Your task to perform on an android device: uninstall "Speedtest by Ookla" Image 0: 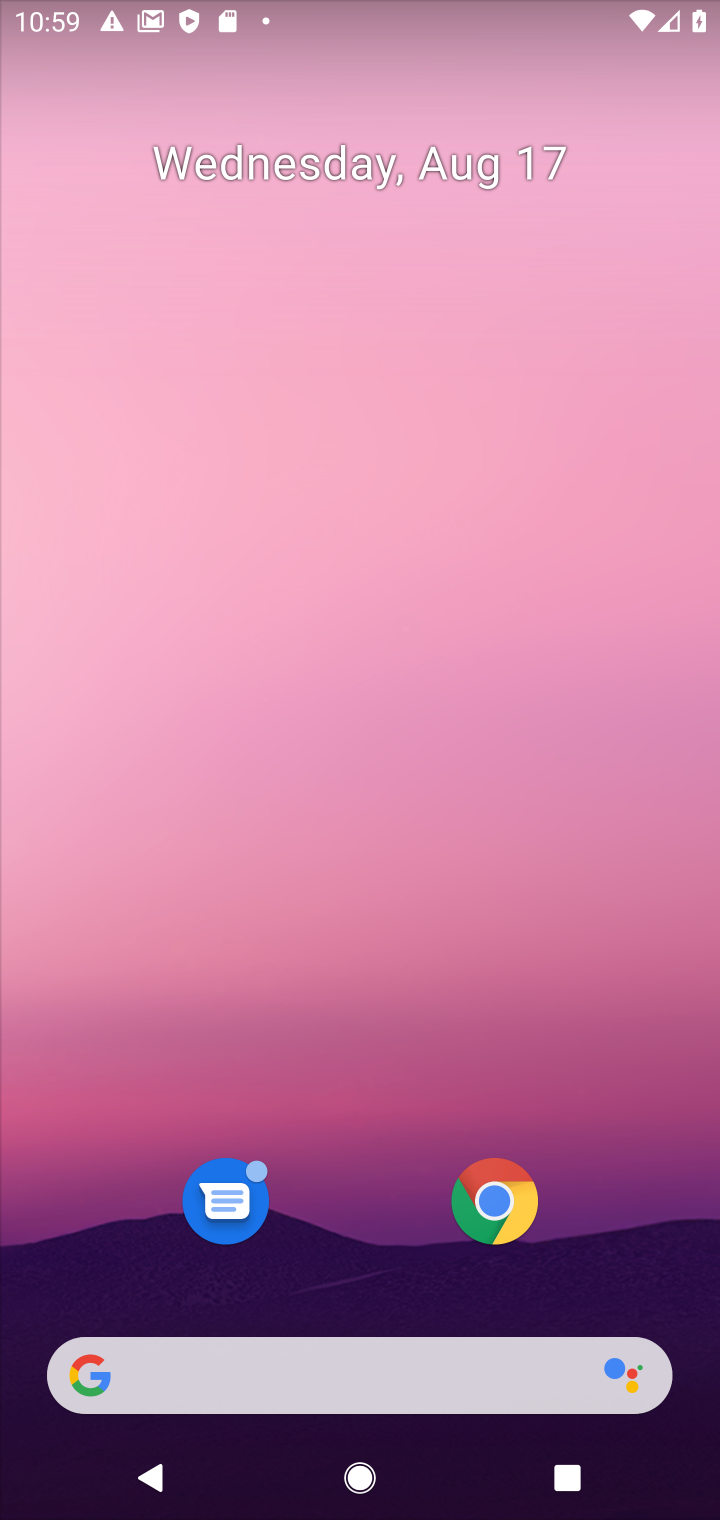
Step 0: drag from (314, 846) to (618, 966)
Your task to perform on an android device: uninstall "Speedtest by Ookla" Image 1: 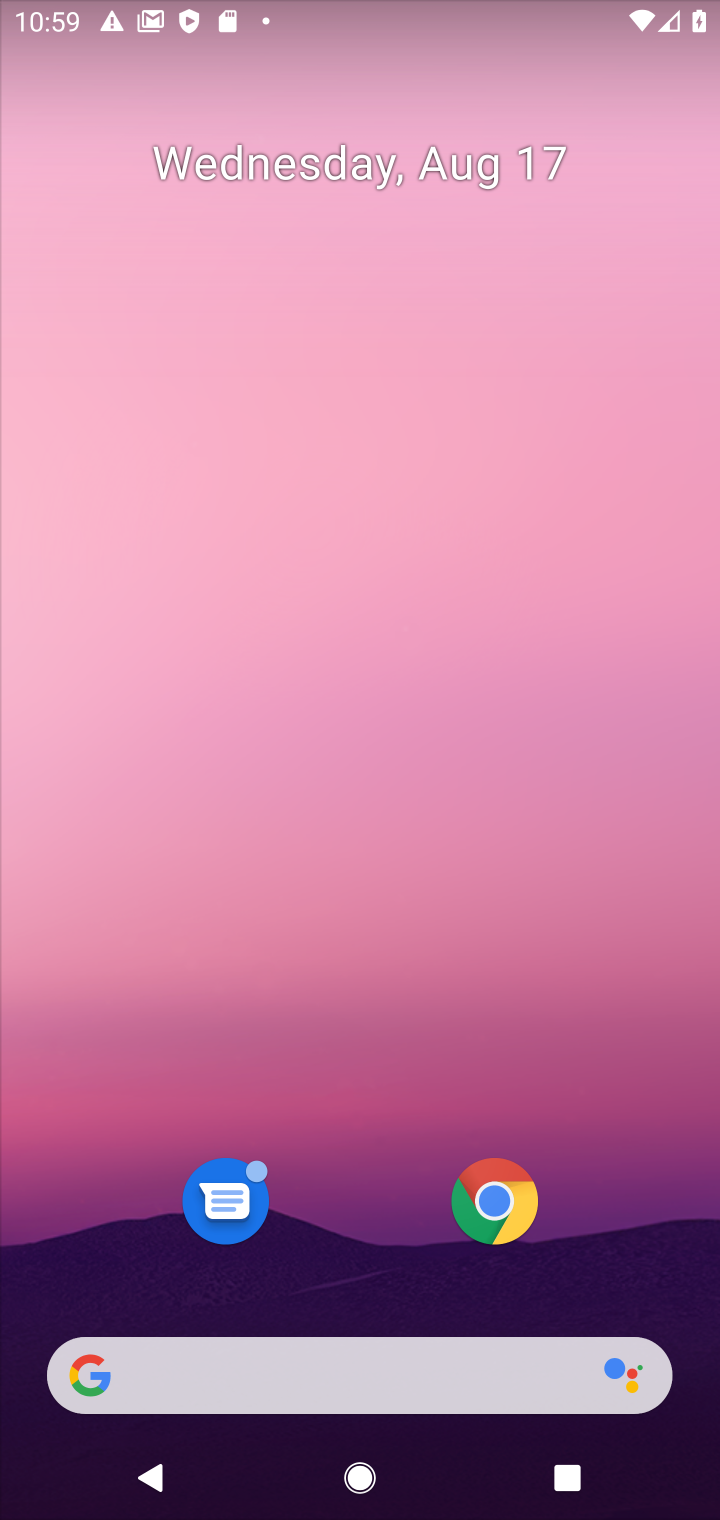
Step 1: drag from (350, 1308) to (348, 1)
Your task to perform on an android device: uninstall "Speedtest by Ookla" Image 2: 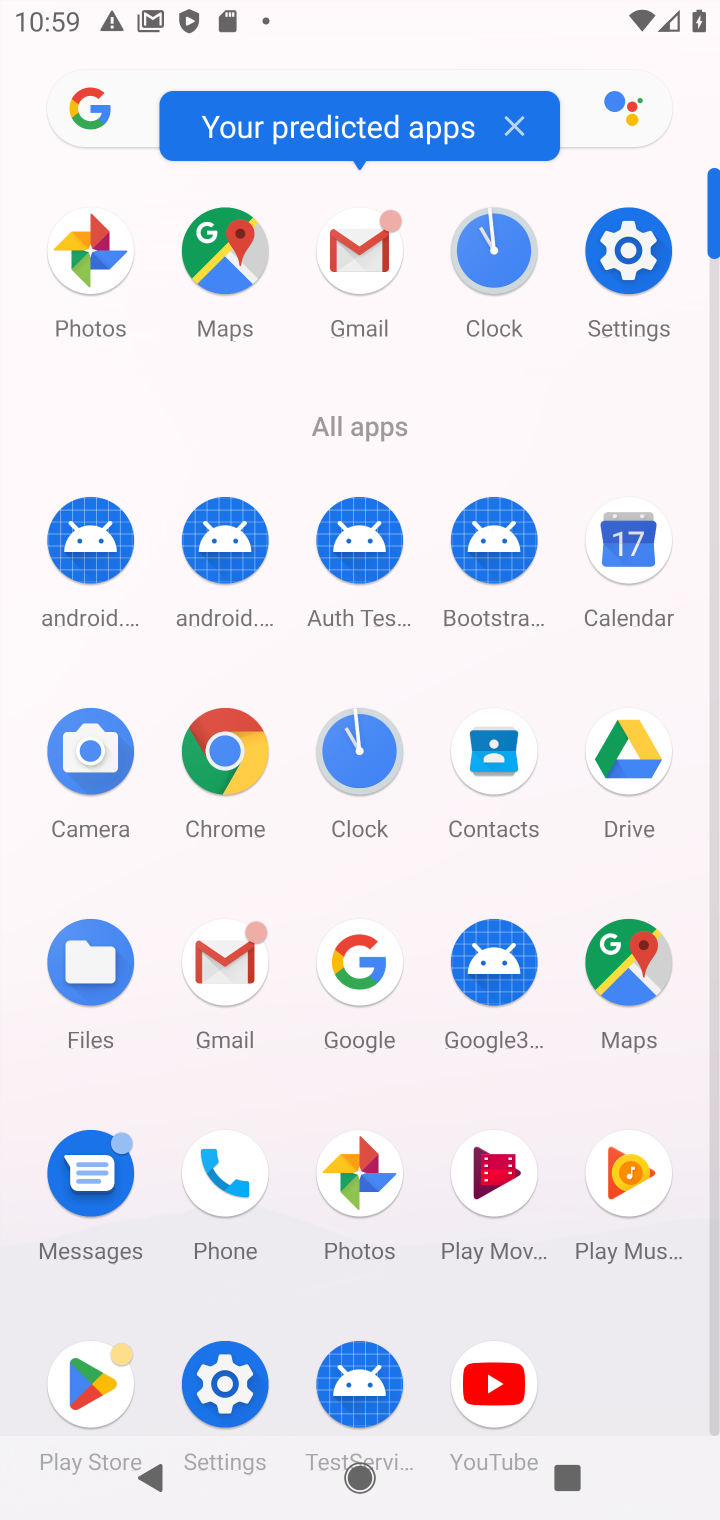
Step 2: click (91, 1377)
Your task to perform on an android device: uninstall "Speedtest by Ookla" Image 3: 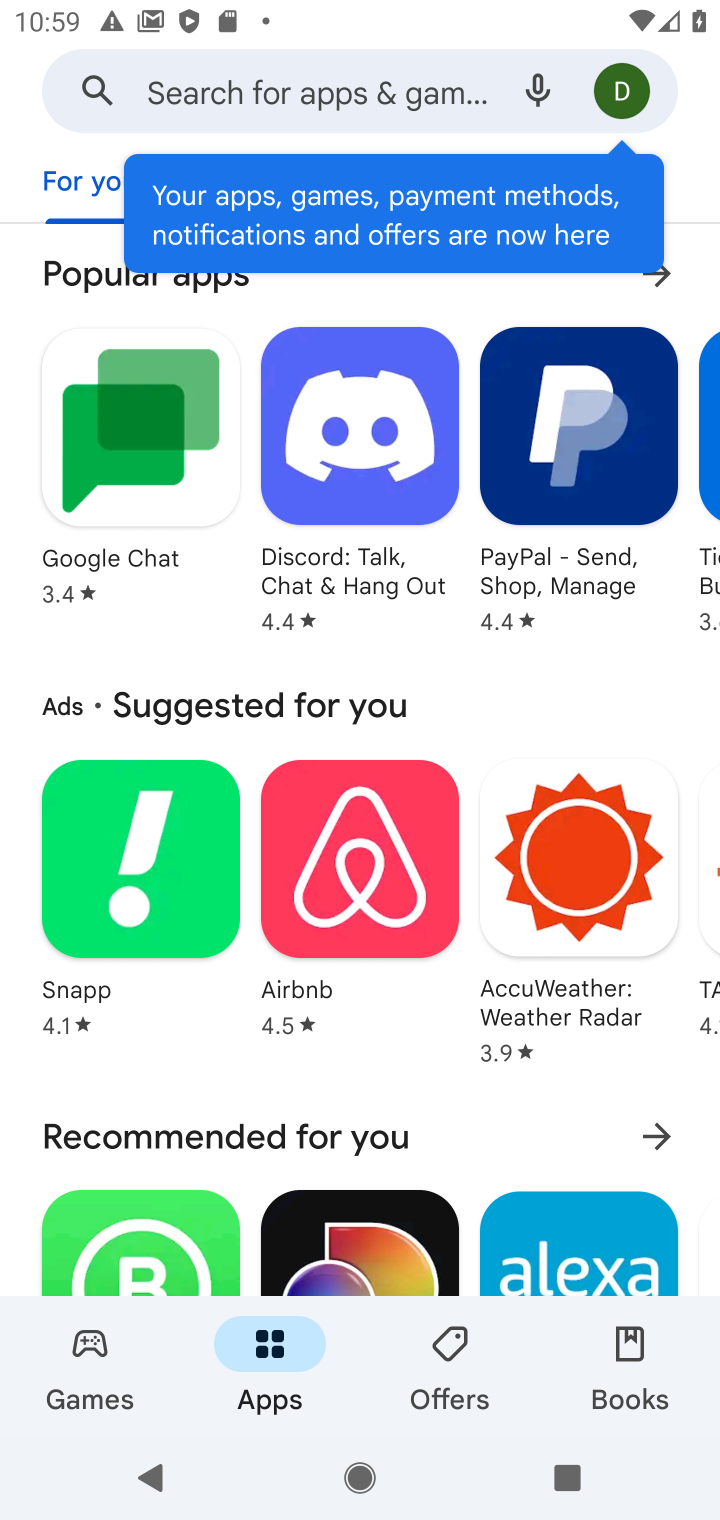
Step 3: click (382, 96)
Your task to perform on an android device: uninstall "Speedtest by Ookla" Image 4: 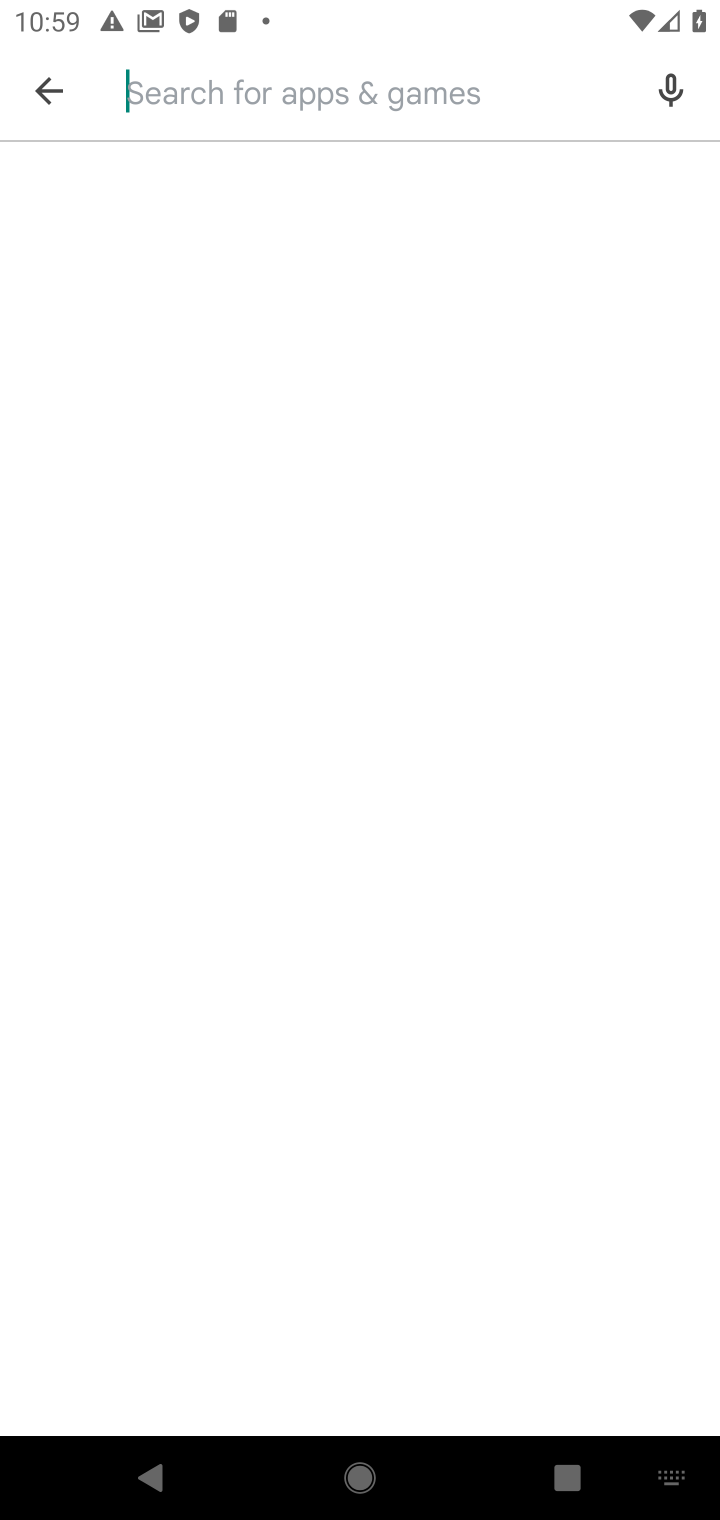
Step 4: type "speedtest by Ookla"
Your task to perform on an android device: uninstall "Speedtest by Ookla" Image 5: 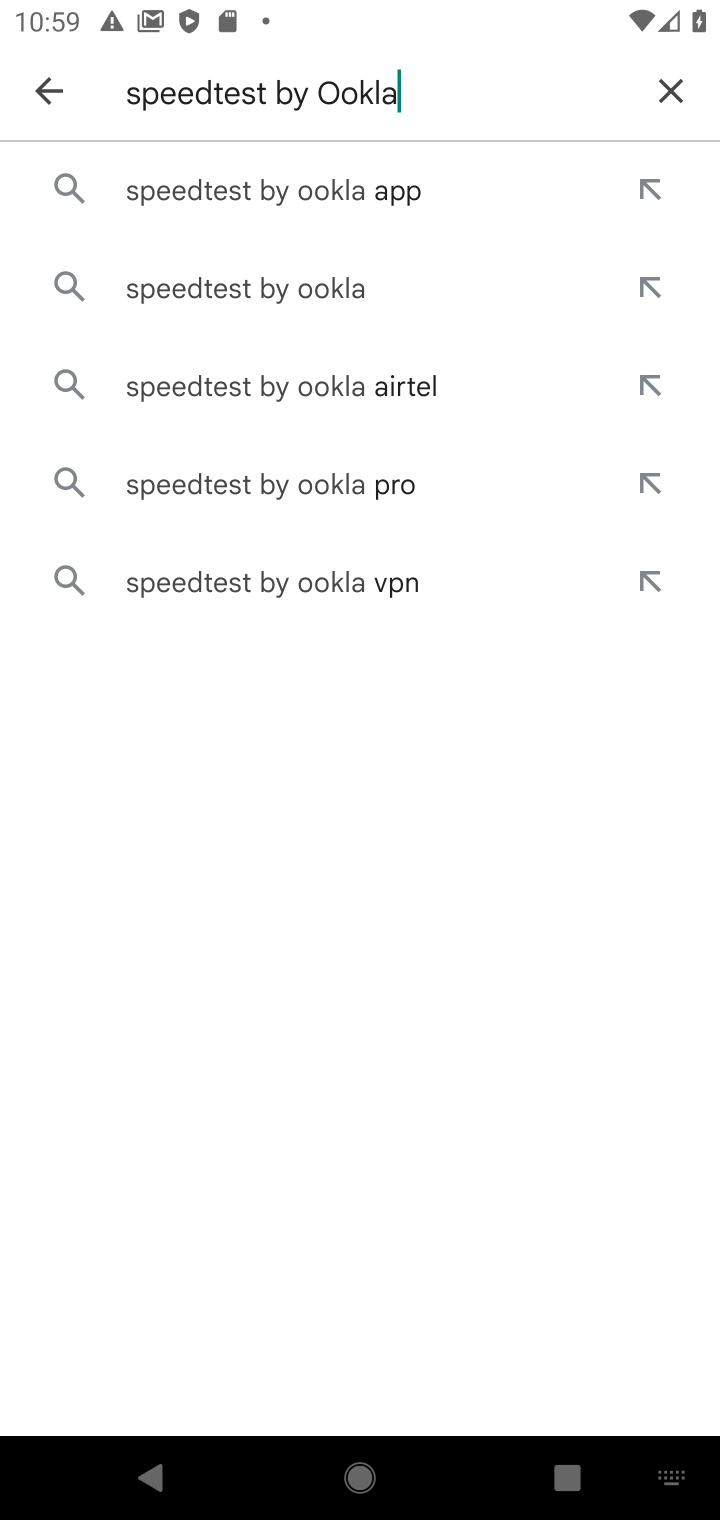
Step 5: click (259, 198)
Your task to perform on an android device: uninstall "Speedtest by Ookla" Image 6: 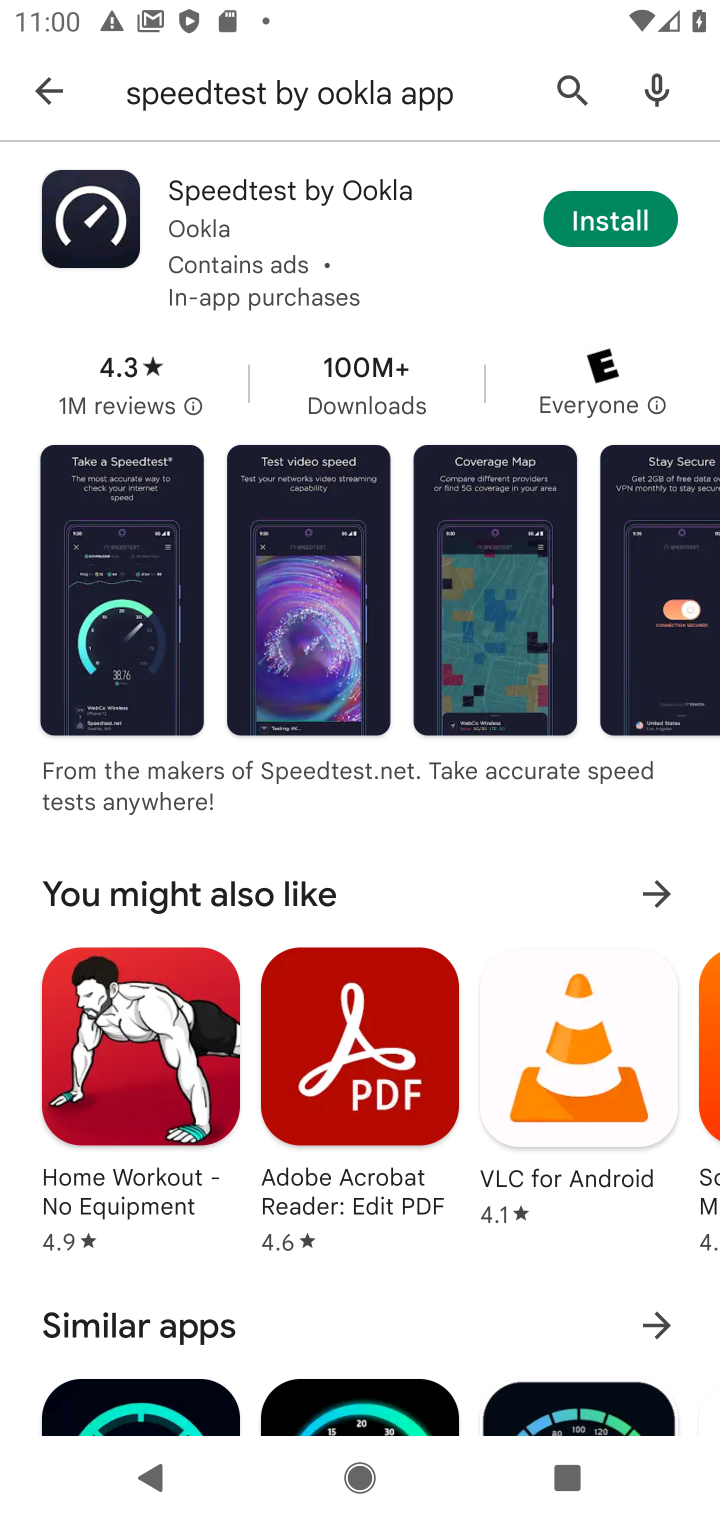
Step 6: task complete